Your task to perform on an android device: Show me the alarms in the clock app Image 0: 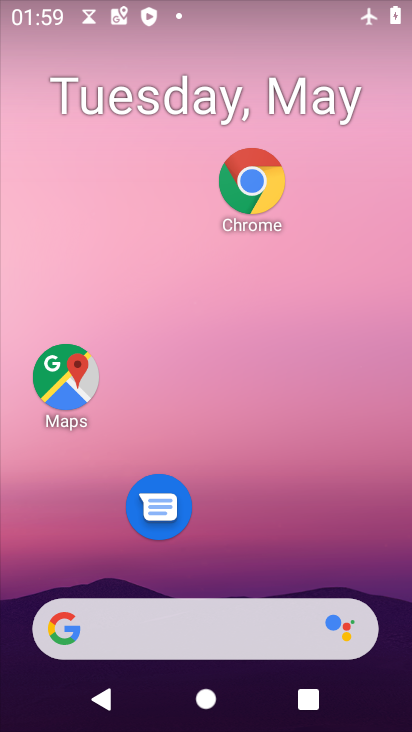
Step 0: drag from (298, 462) to (322, 303)
Your task to perform on an android device: Show me the alarms in the clock app Image 1: 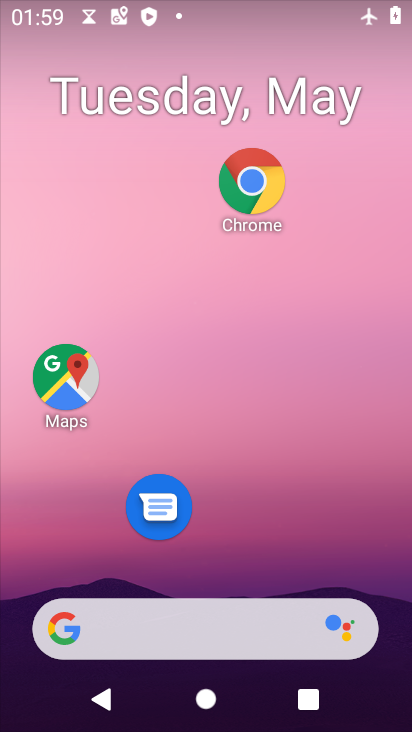
Step 1: drag from (284, 560) to (326, 294)
Your task to perform on an android device: Show me the alarms in the clock app Image 2: 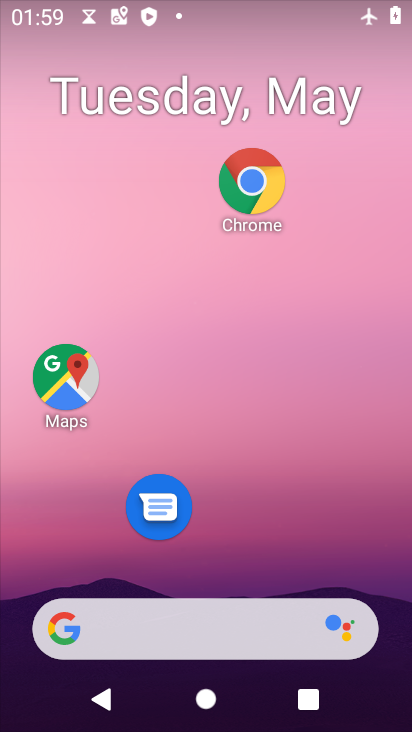
Step 2: drag from (242, 538) to (271, 328)
Your task to perform on an android device: Show me the alarms in the clock app Image 3: 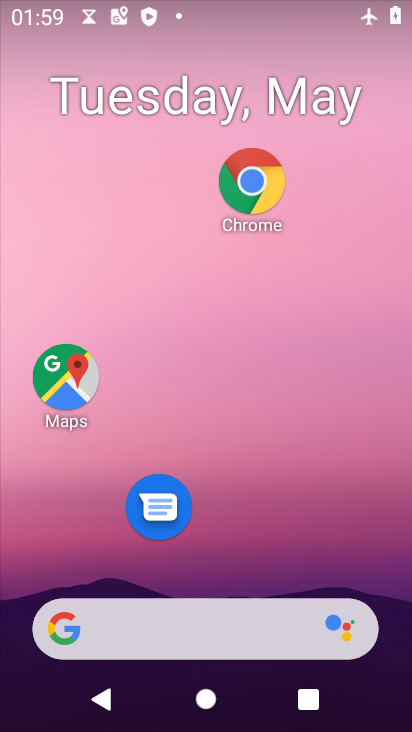
Step 3: drag from (228, 616) to (269, 268)
Your task to perform on an android device: Show me the alarms in the clock app Image 4: 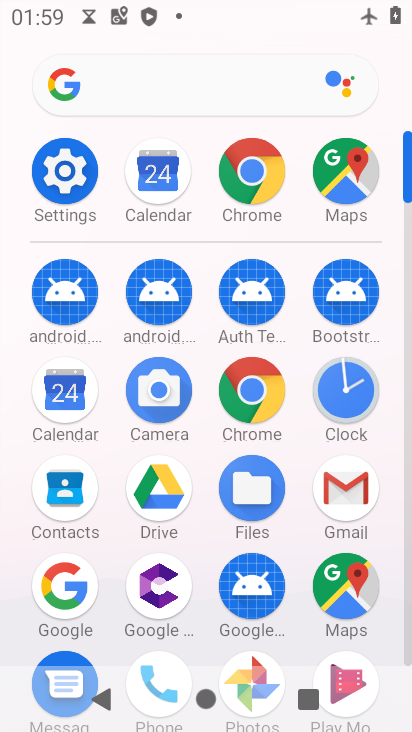
Step 4: click (351, 390)
Your task to perform on an android device: Show me the alarms in the clock app Image 5: 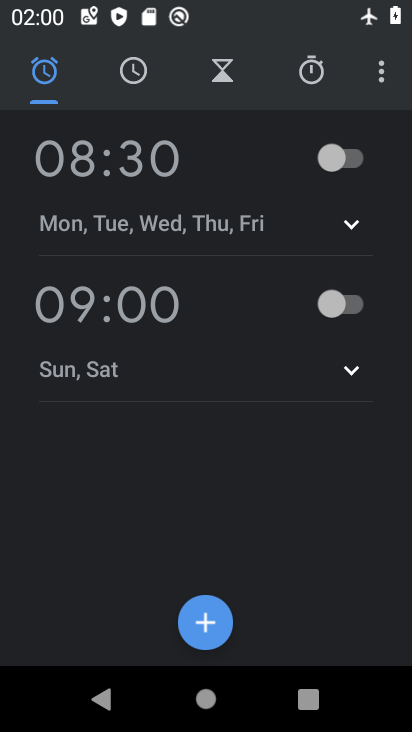
Step 5: task complete